Your task to perform on an android device: set the timer Image 0: 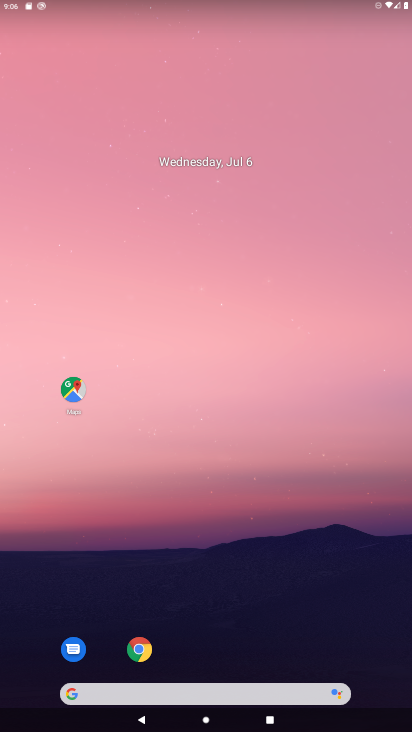
Step 0: drag from (279, 639) to (261, 133)
Your task to perform on an android device: set the timer Image 1: 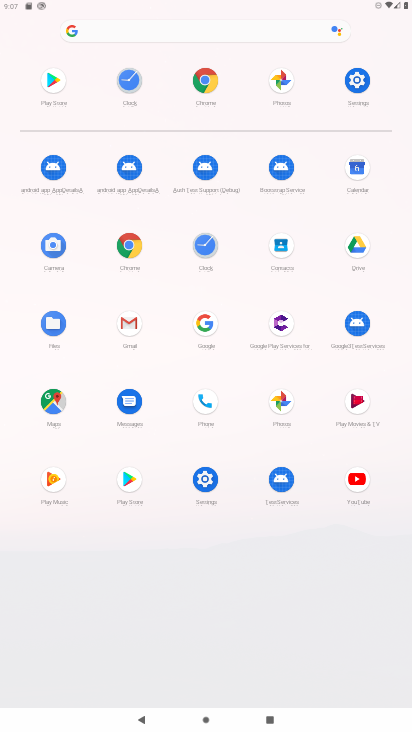
Step 1: click (201, 246)
Your task to perform on an android device: set the timer Image 2: 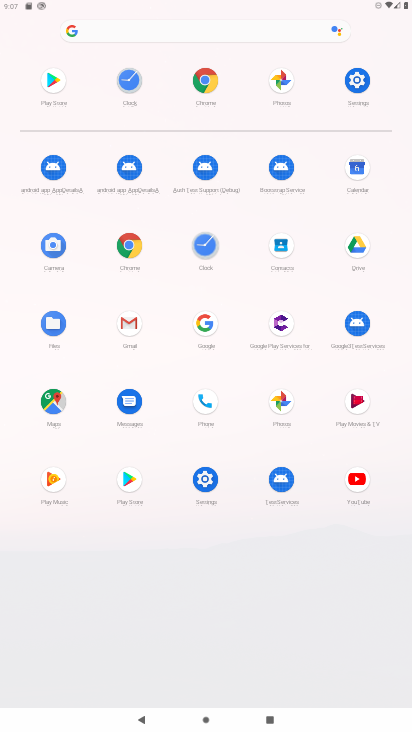
Step 2: click (201, 246)
Your task to perform on an android device: set the timer Image 3: 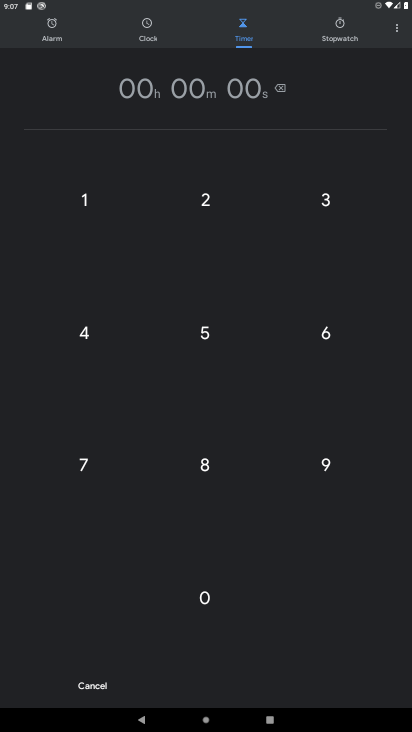
Step 3: click (243, 31)
Your task to perform on an android device: set the timer Image 4: 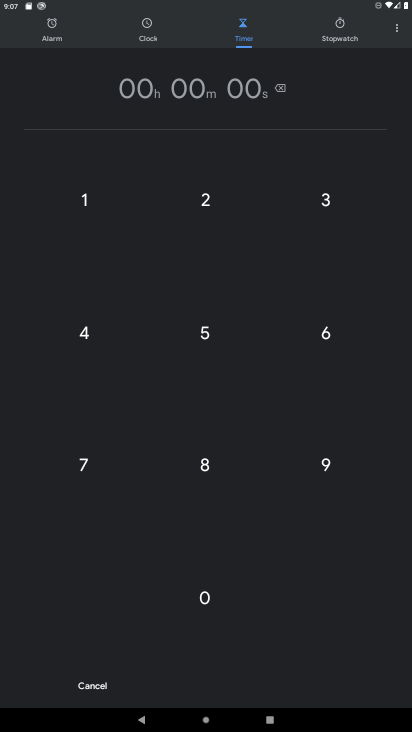
Step 4: click (243, 31)
Your task to perform on an android device: set the timer Image 5: 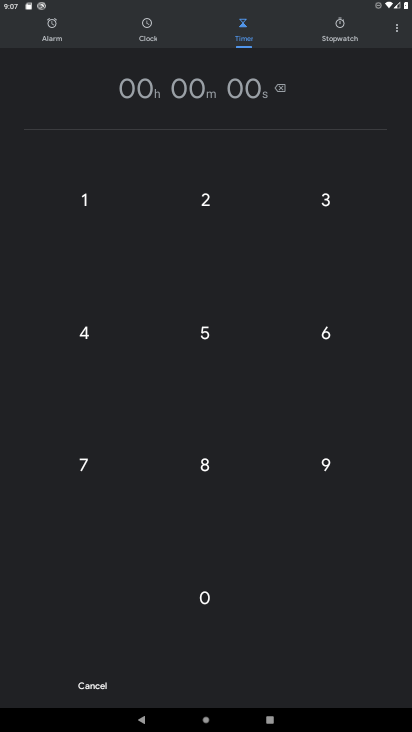
Step 5: click (243, 31)
Your task to perform on an android device: set the timer Image 6: 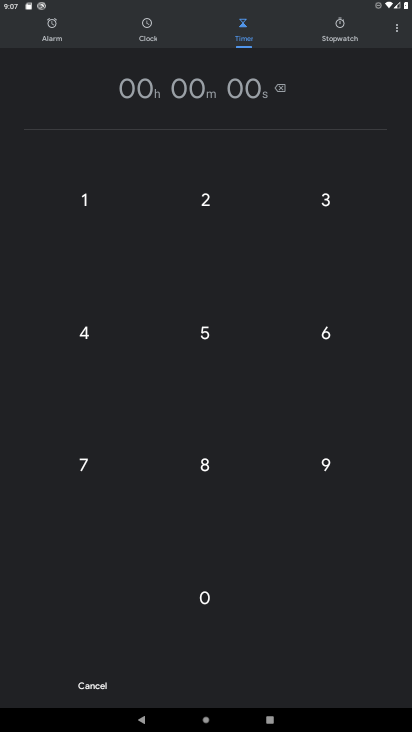
Step 6: click (204, 598)
Your task to perform on an android device: set the timer Image 7: 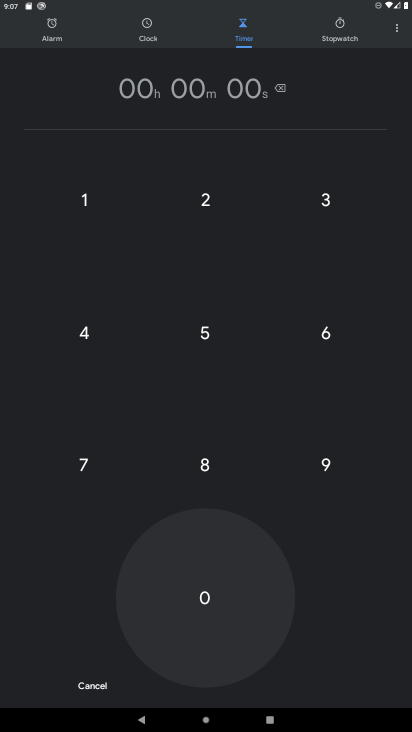
Step 7: click (204, 599)
Your task to perform on an android device: set the timer Image 8: 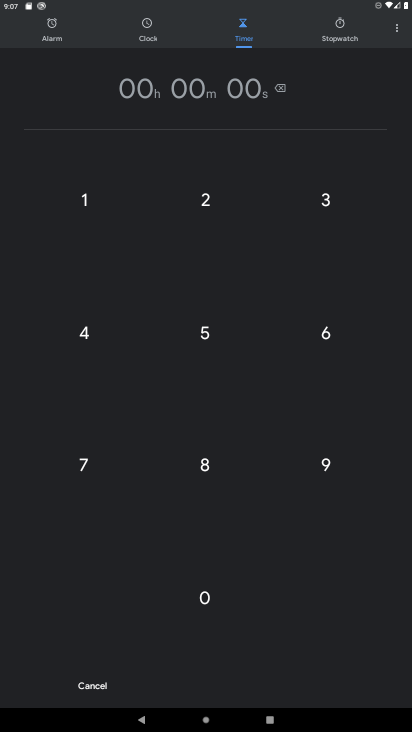
Step 8: click (205, 601)
Your task to perform on an android device: set the timer Image 9: 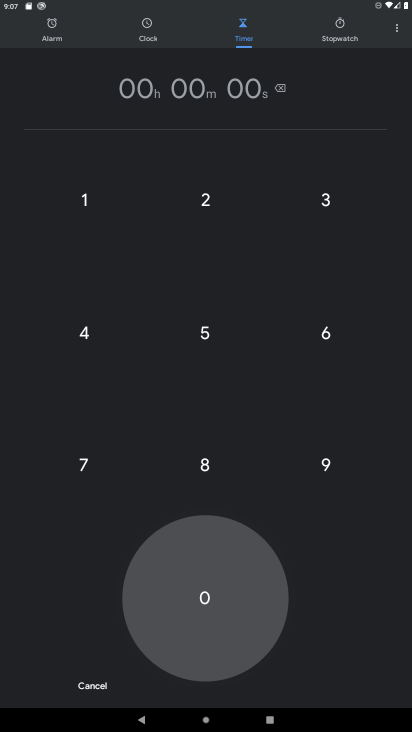
Step 9: click (205, 602)
Your task to perform on an android device: set the timer Image 10: 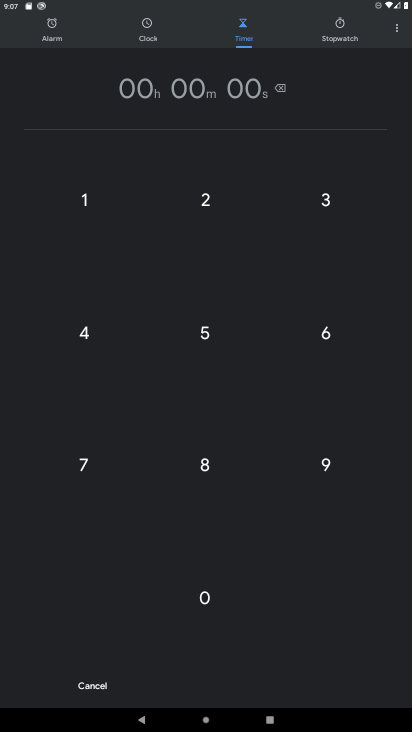
Step 10: click (247, 35)
Your task to perform on an android device: set the timer Image 11: 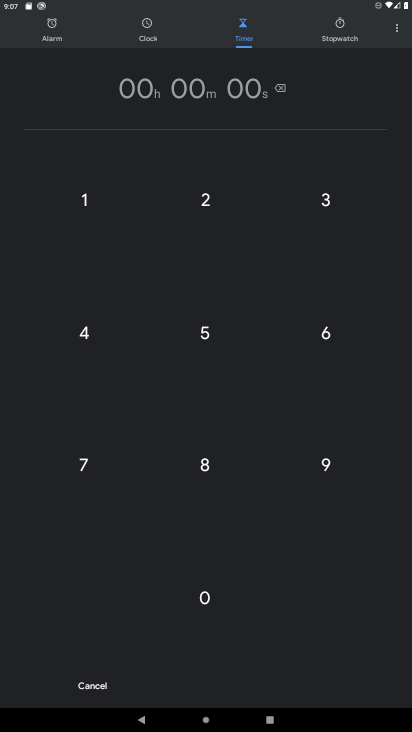
Step 11: click (247, 35)
Your task to perform on an android device: set the timer Image 12: 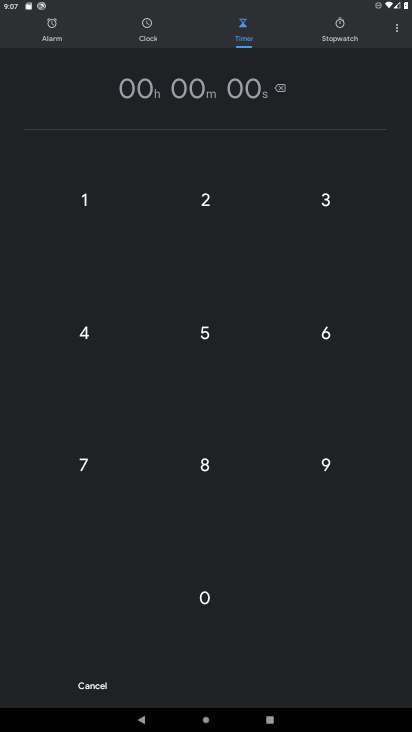
Step 12: click (246, 41)
Your task to perform on an android device: set the timer Image 13: 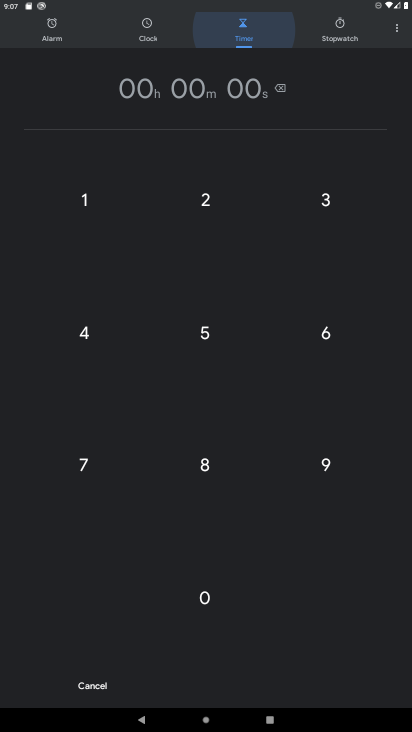
Step 13: click (244, 45)
Your task to perform on an android device: set the timer Image 14: 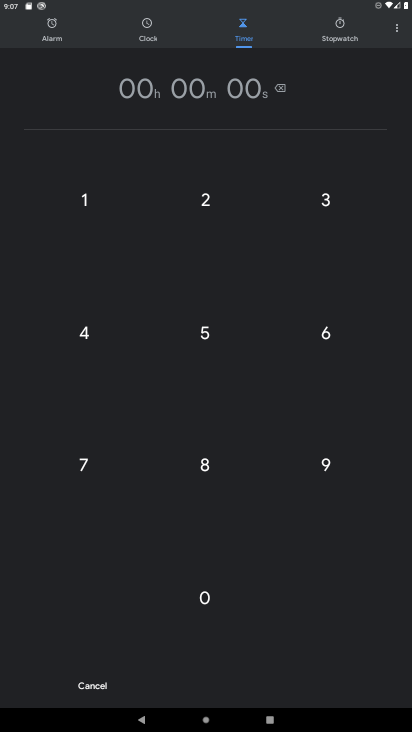
Step 14: click (330, 467)
Your task to perform on an android device: set the timer Image 15: 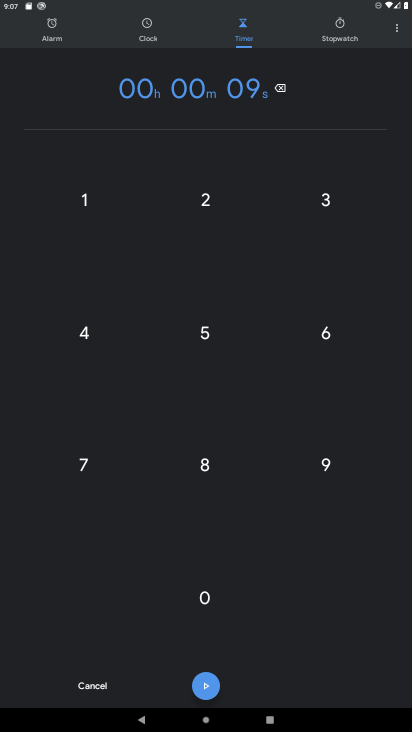
Step 15: click (203, 675)
Your task to perform on an android device: set the timer Image 16: 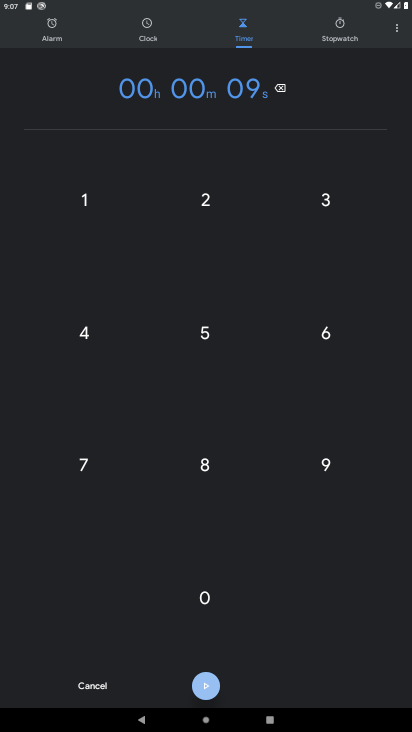
Step 16: click (205, 673)
Your task to perform on an android device: set the timer Image 17: 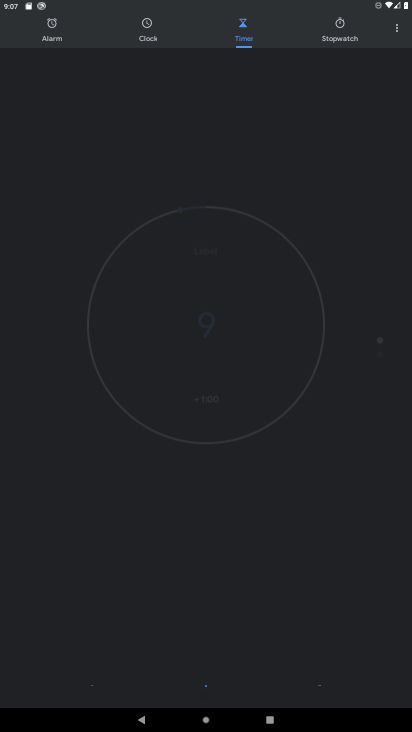
Step 17: click (208, 662)
Your task to perform on an android device: set the timer Image 18: 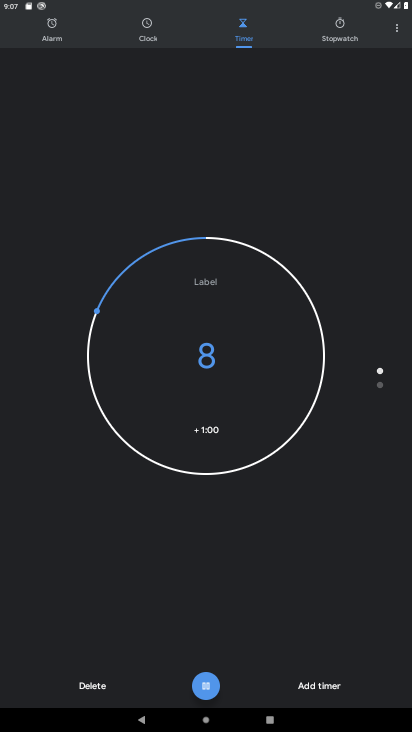
Step 18: click (211, 682)
Your task to perform on an android device: set the timer Image 19: 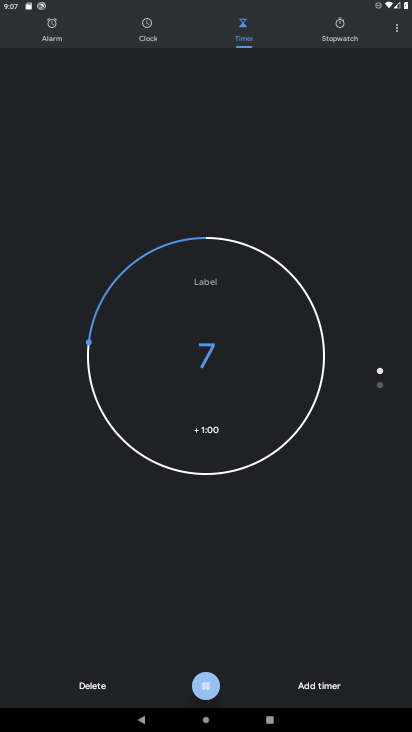
Step 19: click (214, 666)
Your task to perform on an android device: set the timer Image 20: 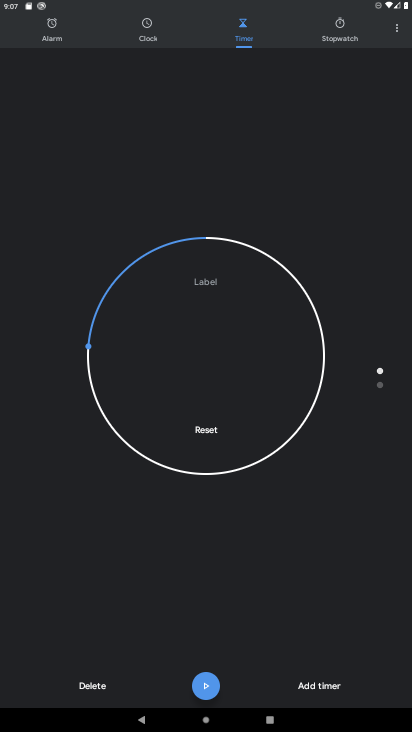
Step 20: click (316, 679)
Your task to perform on an android device: set the timer Image 21: 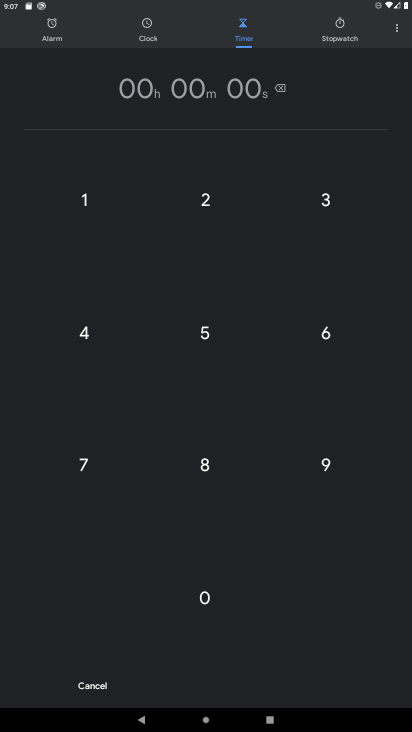
Step 21: click (197, 472)
Your task to perform on an android device: set the timer Image 22: 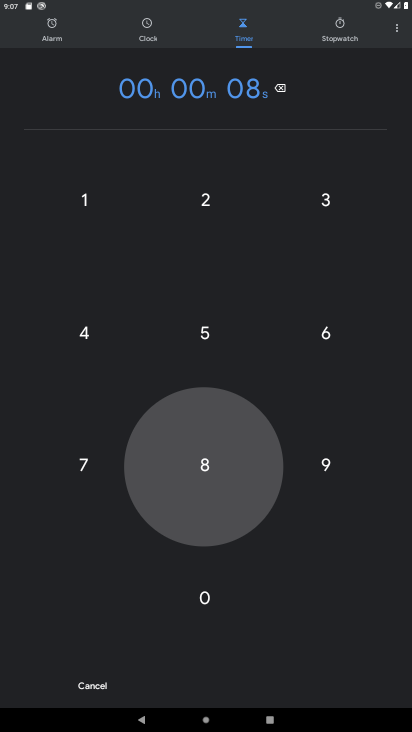
Step 22: click (201, 468)
Your task to perform on an android device: set the timer Image 23: 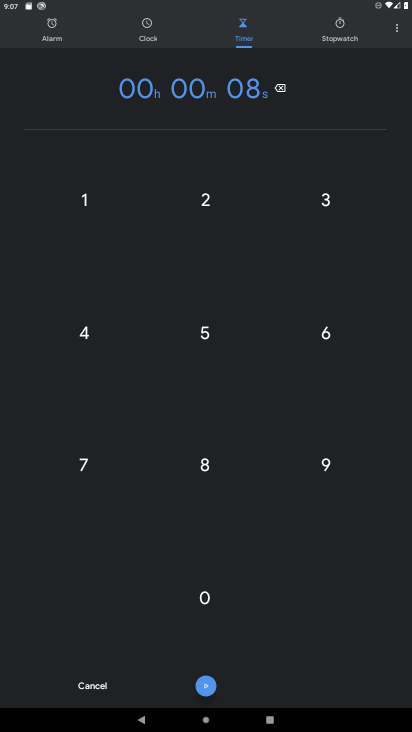
Step 23: click (201, 468)
Your task to perform on an android device: set the timer Image 24: 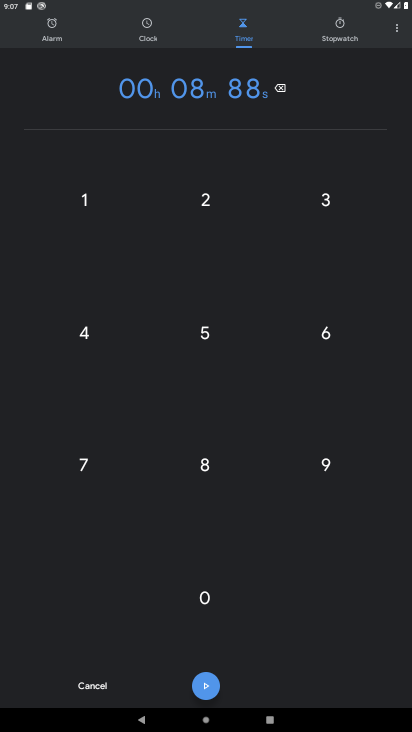
Step 24: click (195, 691)
Your task to perform on an android device: set the timer Image 25: 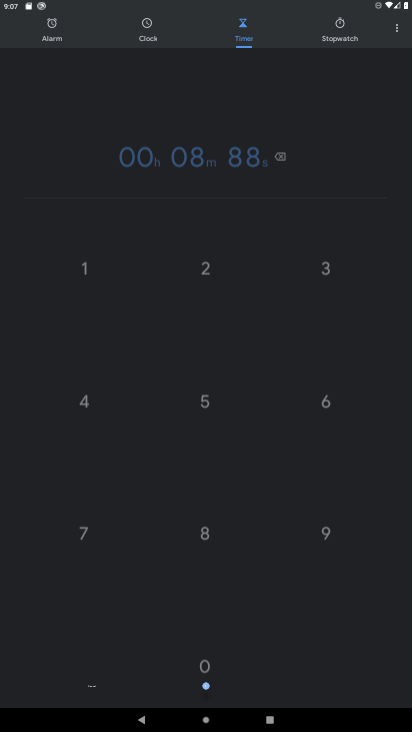
Step 25: click (199, 695)
Your task to perform on an android device: set the timer Image 26: 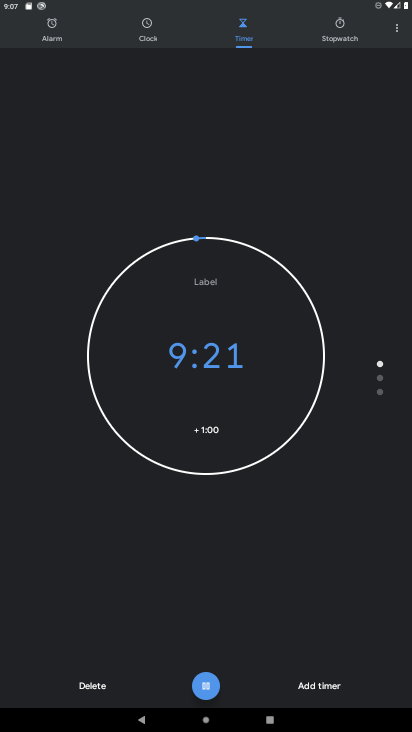
Step 26: click (208, 684)
Your task to perform on an android device: set the timer Image 27: 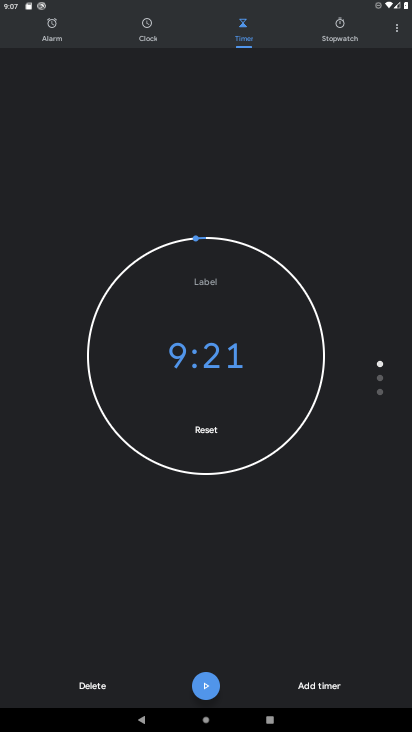
Step 27: task complete